Your task to perform on an android device: turn on the 12-hour format for clock Image 0: 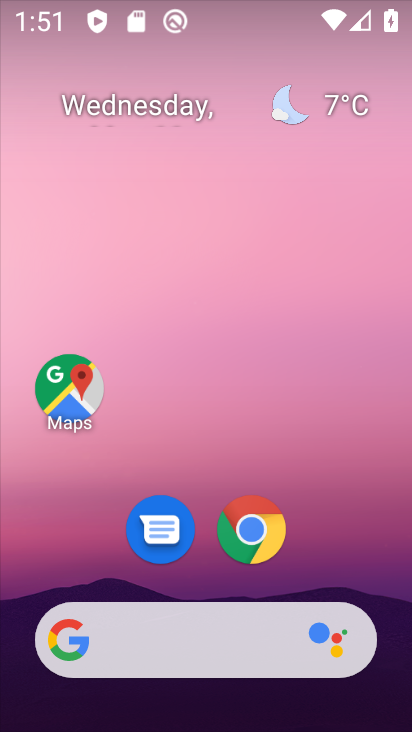
Step 0: drag from (215, 726) to (268, 122)
Your task to perform on an android device: turn on the 12-hour format for clock Image 1: 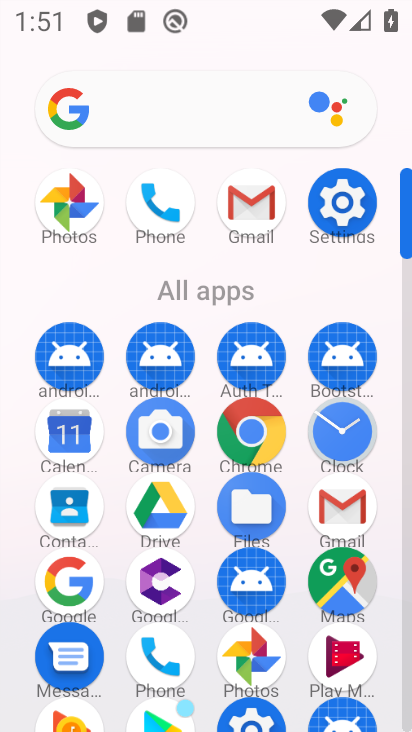
Step 1: click (356, 426)
Your task to perform on an android device: turn on the 12-hour format for clock Image 2: 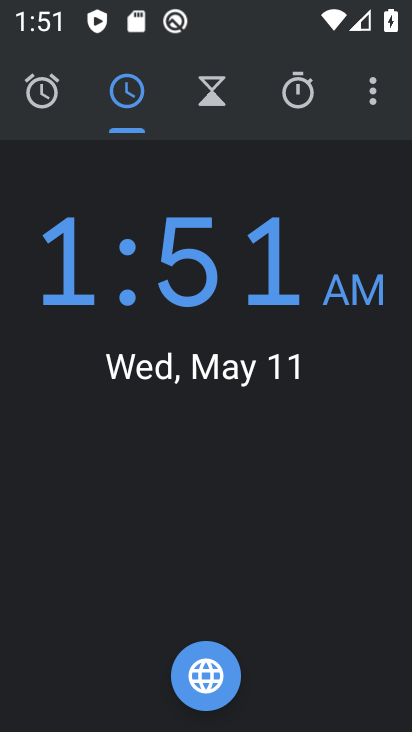
Step 2: click (366, 102)
Your task to perform on an android device: turn on the 12-hour format for clock Image 3: 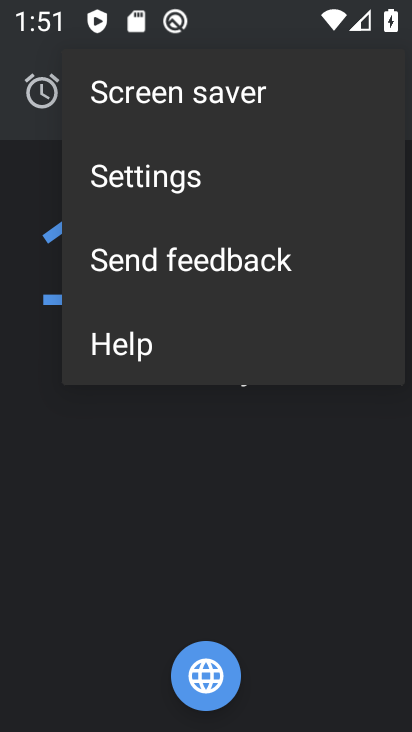
Step 3: click (180, 175)
Your task to perform on an android device: turn on the 12-hour format for clock Image 4: 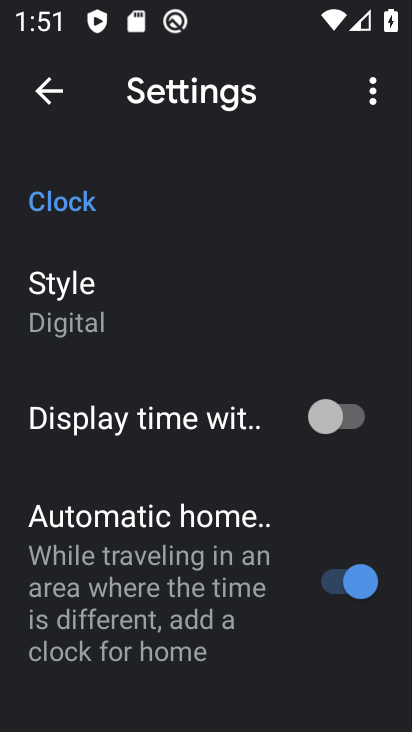
Step 4: drag from (102, 646) to (212, 226)
Your task to perform on an android device: turn on the 12-hour format for clock Image 5: 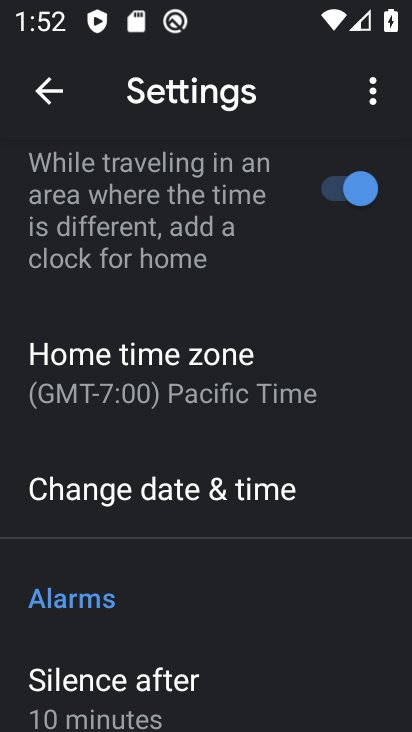
Step 5: click (139, 494)
Your task to perform on an android device: turn on the 12-hour format for clock Image 6: 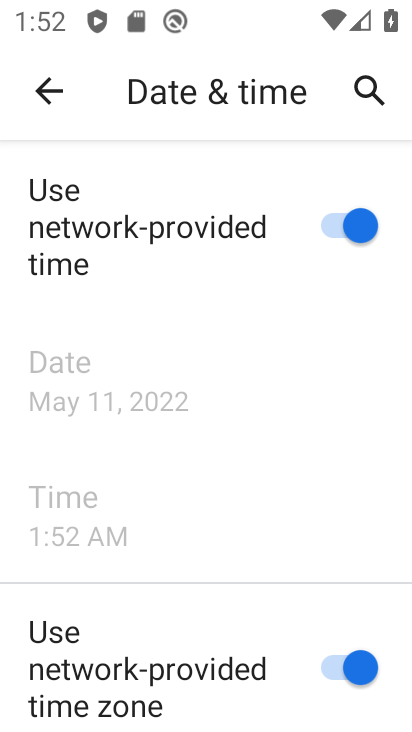
Step 6: task complete